Your task to perform on an android device: Find coffee shops on Maps Image 0: 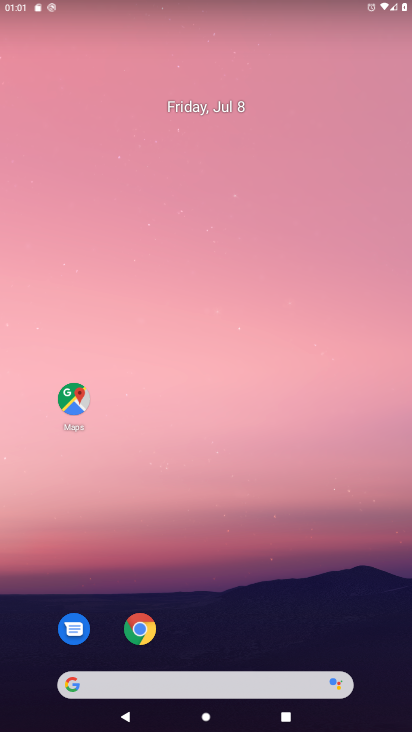
Step 0: click (68, 406)
Your task to perform on an android device: Find coffee shops on Maps Image 1: 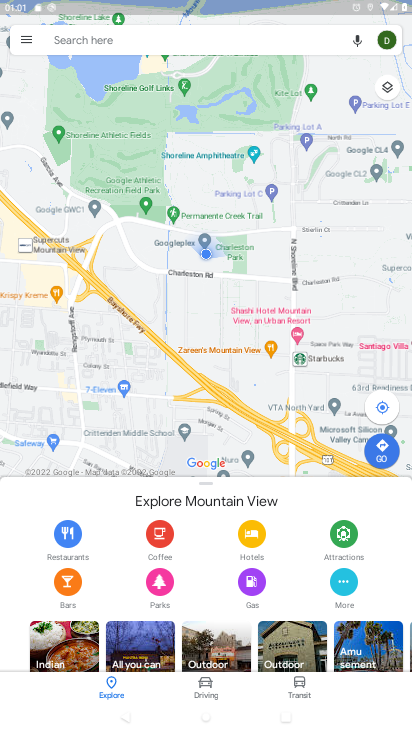
Step 1: click (168, 35)
Your task to perform on an android device: Find coffee shops on Maps Image 2: 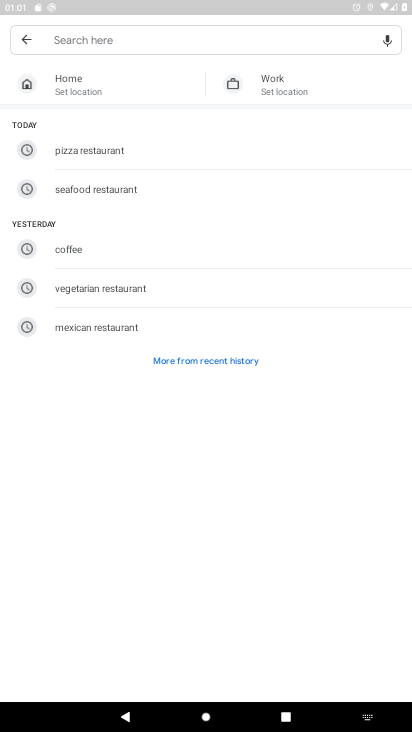
Step 2: type "coffee shops"
Your task to perform on an android device: Find coffee shops on Maps Image 3: 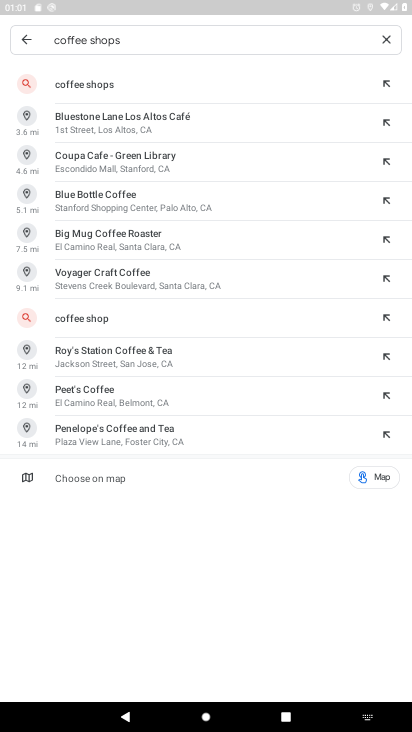
Step 3: click (149, 86)
Your task to perform on an android device: Find coffee shops on Maps Image 4: 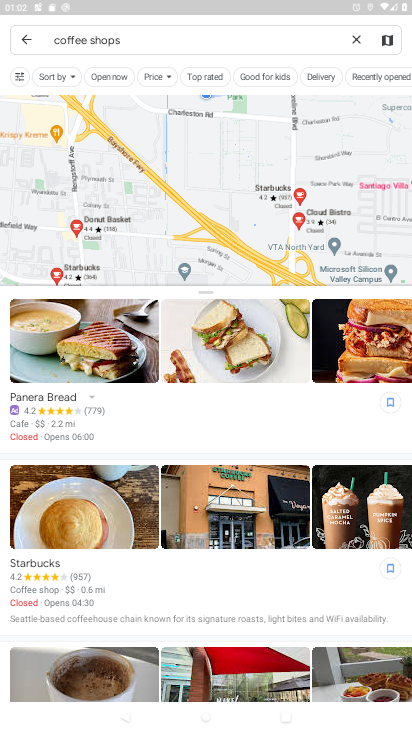
Step 4: task complete